Your task to perform on an android device: check google app version Image 0: 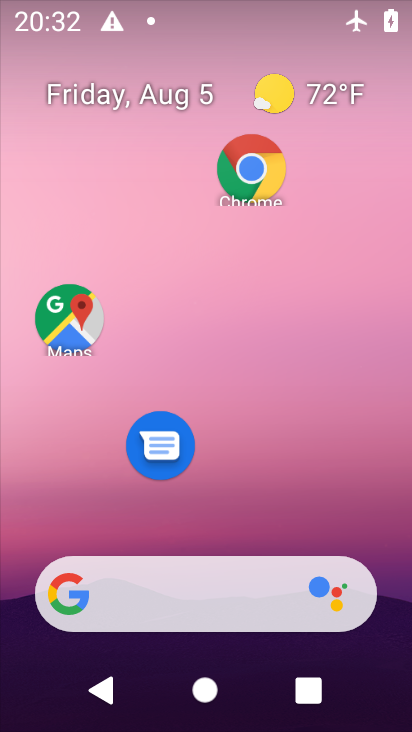
Step 0: drag from (209, 521) to (188, 175)
Your task to perform on an android device: check google app version Image 1: 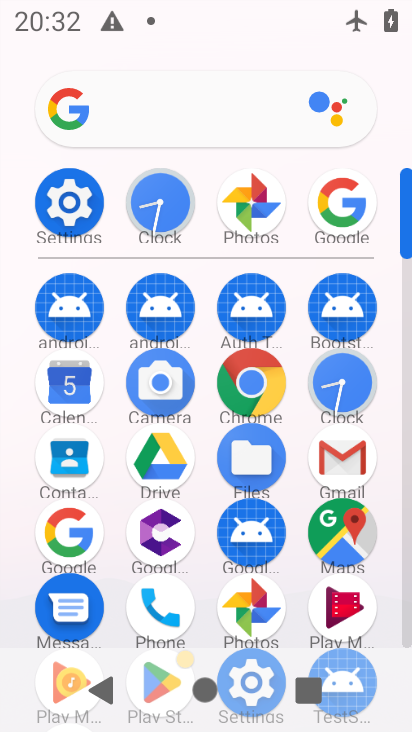
Step 1: click (65, 548)
Your task to perform on an android device: check google app version Image 2: 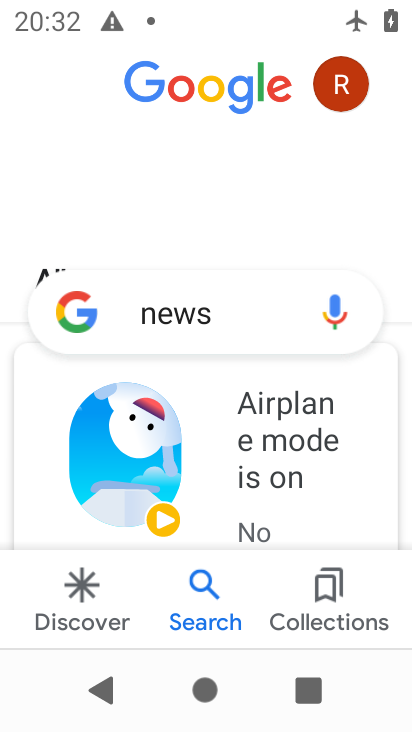
Step 2: click (333, 80)
Your task to perform on an android device: check google app version Image 3: 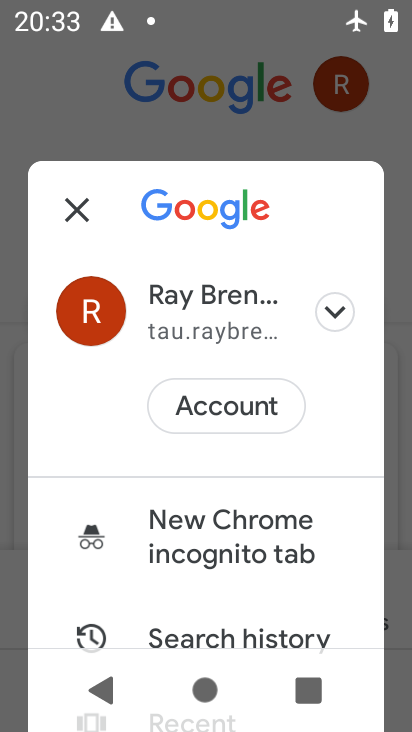
Step 3: drag from (141, 590) to (159, 274)
Your task to perform on an android device: check google app version Image 4: 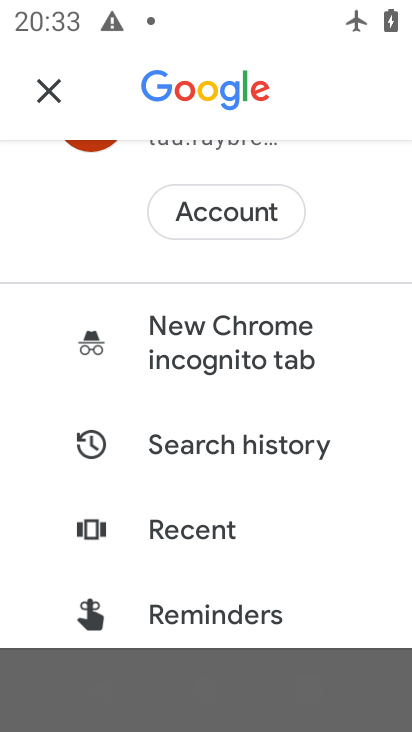
Step 4: drag from (210, 567) to (226, 207)
Your task to perform on an android device: check google app version Image 5: 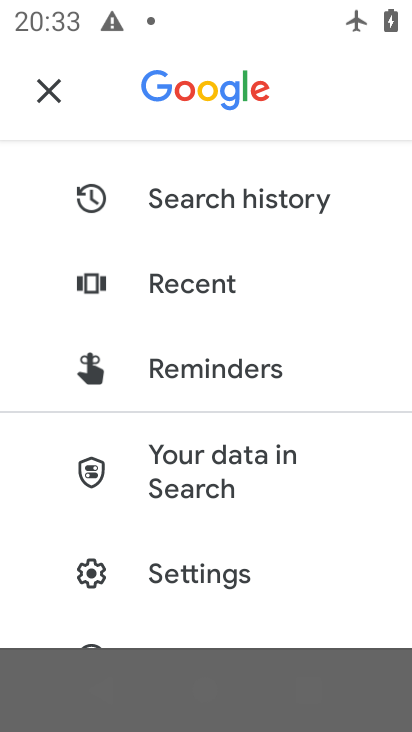
Step 5: click (220, 582)
Your task to perform on an android device: check google app version Image 6: 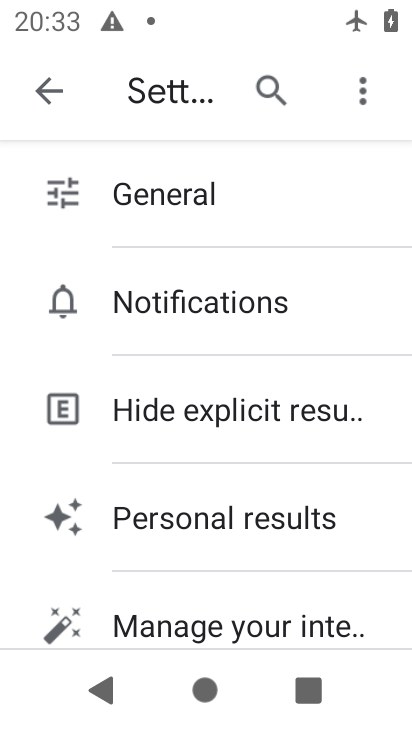
Step 6: drag from (264, 576) to (266, 200)
Your task to perform on an android device: check google app version Image 7: 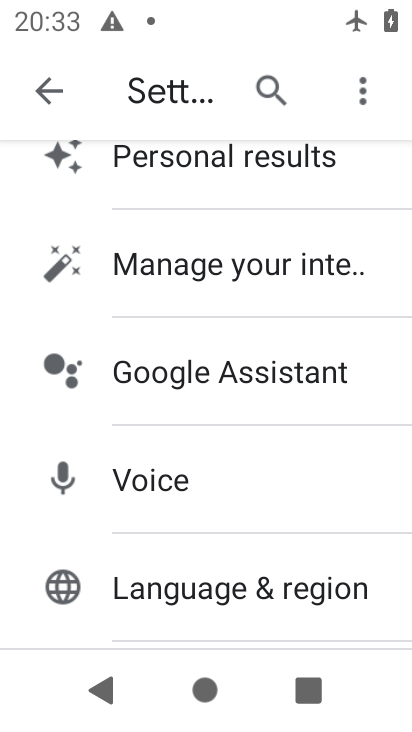
Step 7: drag from (221, 557) to (202, 190)
Your task to perform on an android device: check google app version Image 8: 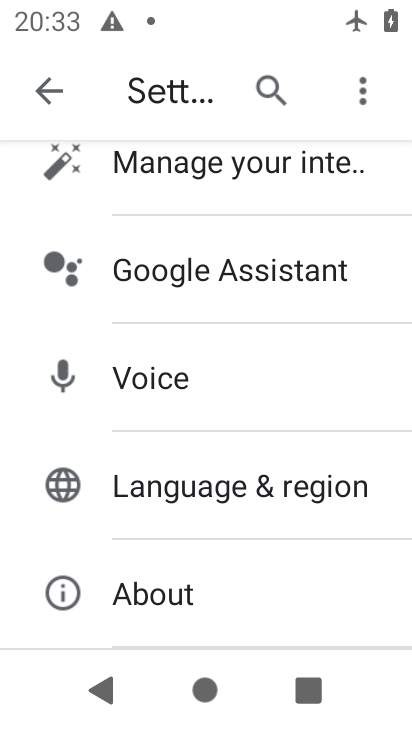
Step 8: click (204, 579)
Your task to perform on an android device: check google app version Image 9: 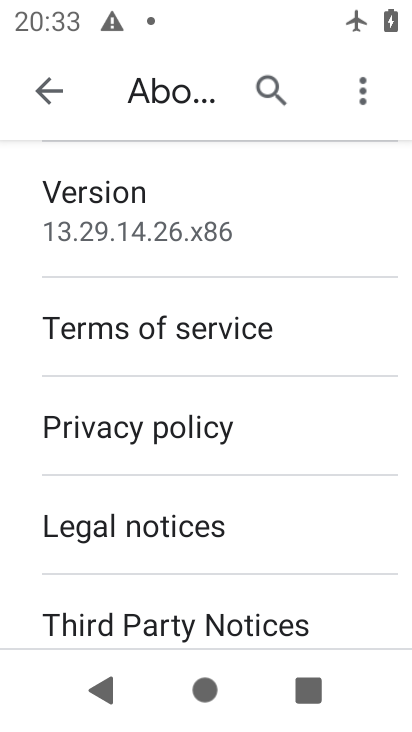
Step 9: click (146, 217)
Your task to perform on an android device: check google app version Image 10: 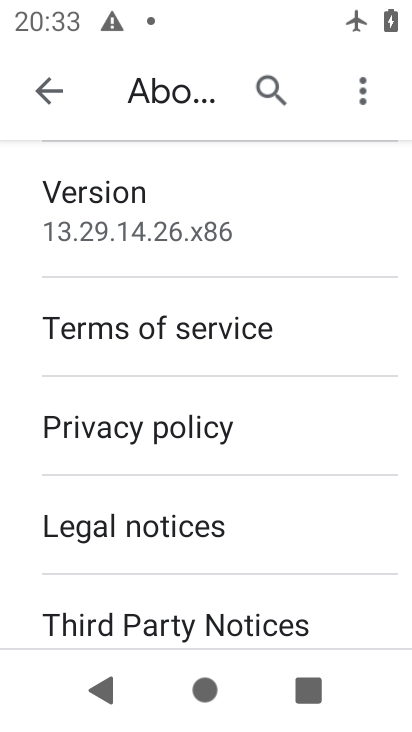
Step 10: task complete